Your task to perform on an android device: uninstall "Google Chat" Image 0: 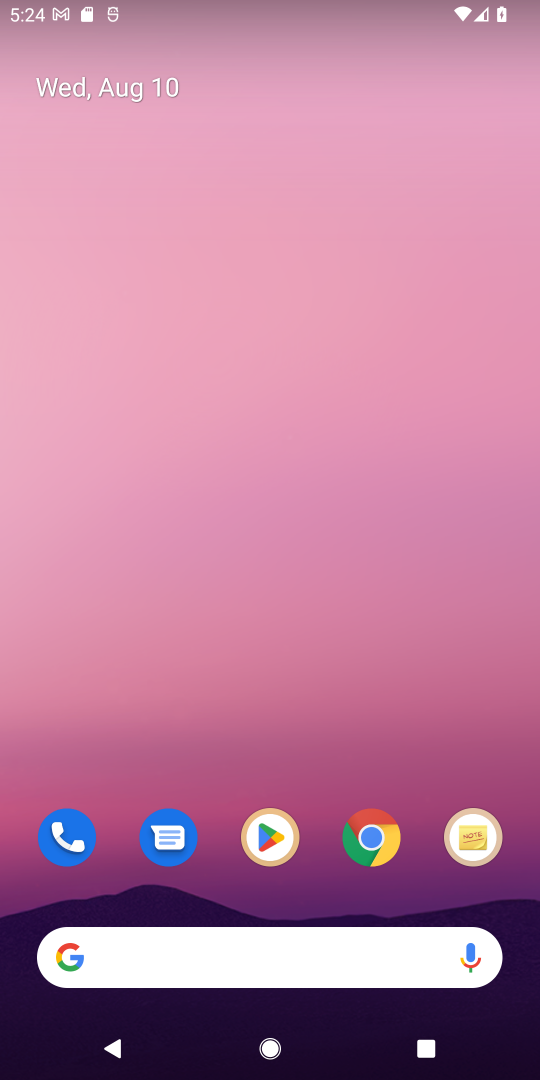
Step 0: press home button
Your task to perform on an android device: uninstall "Google Chat" Image 1: 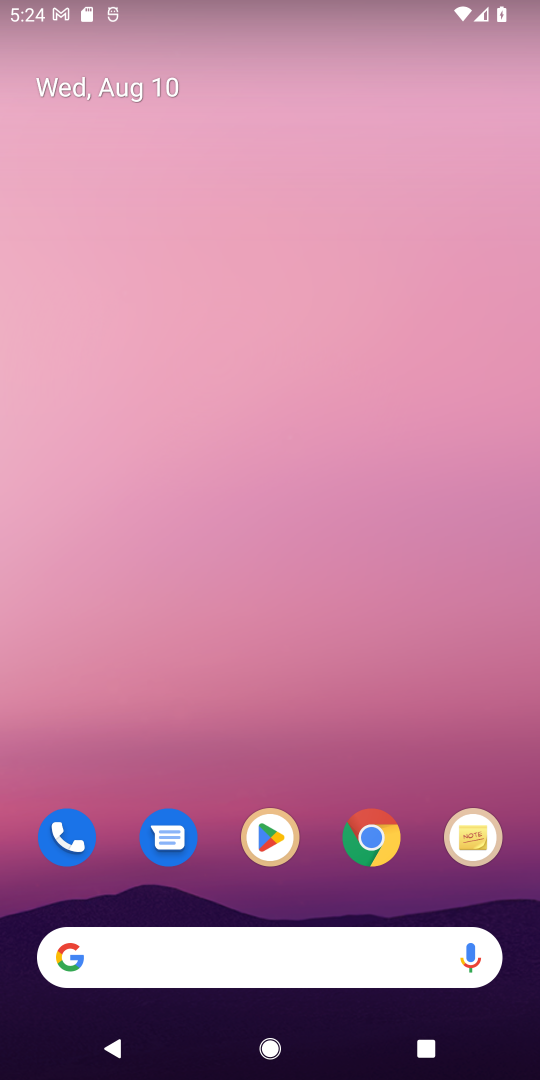
Step 1: click (268, 840)
Your task to perform on an android device: uninstall "Google Chat" Image 2: 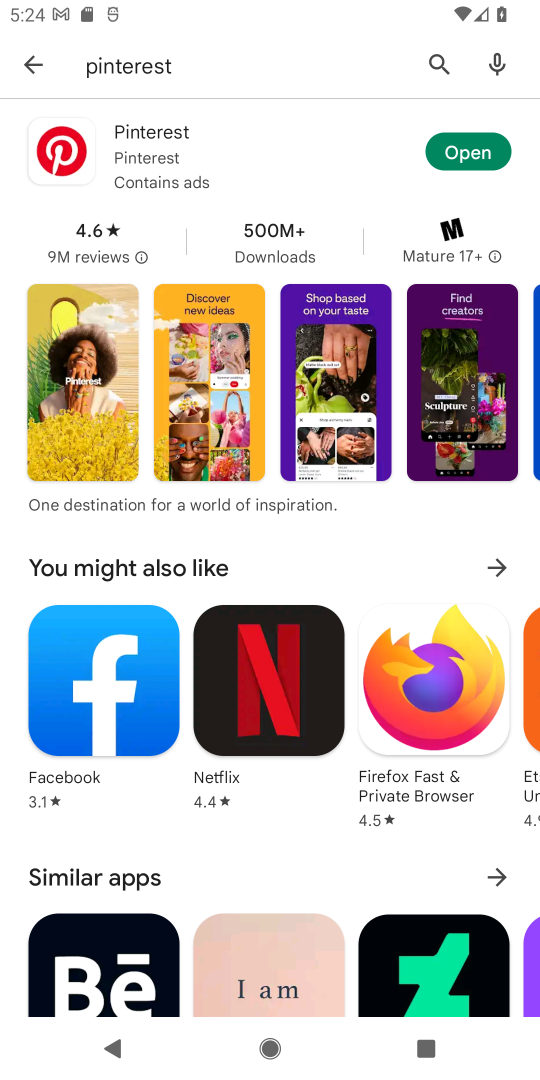
Step 2: click (436, 56)
Your task to perform on an android device: uninstall "Google Chat" Image 3: 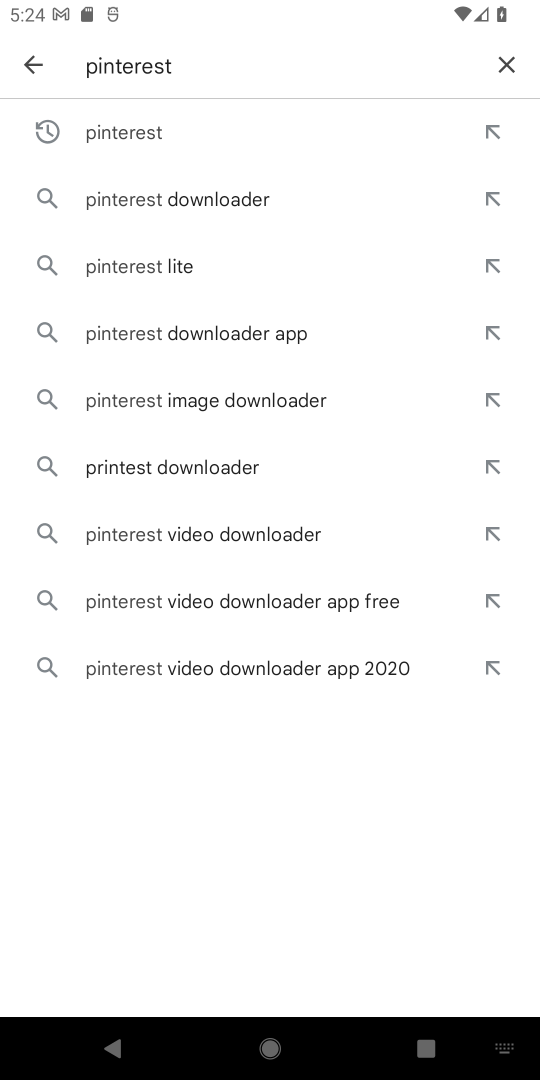
Step 3: click (499, 65)
Your task to perform on an android device: uninstall "Google Chat" Image 4: 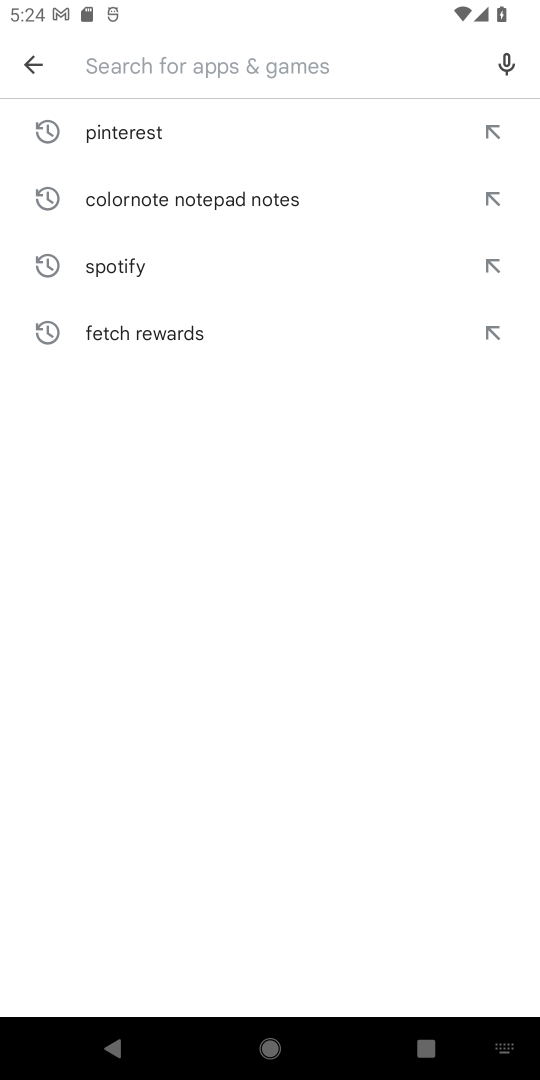
Step 4: type "Google Chat"
Your task to perform on an android device: uninstall "Google Chat" Image 5: 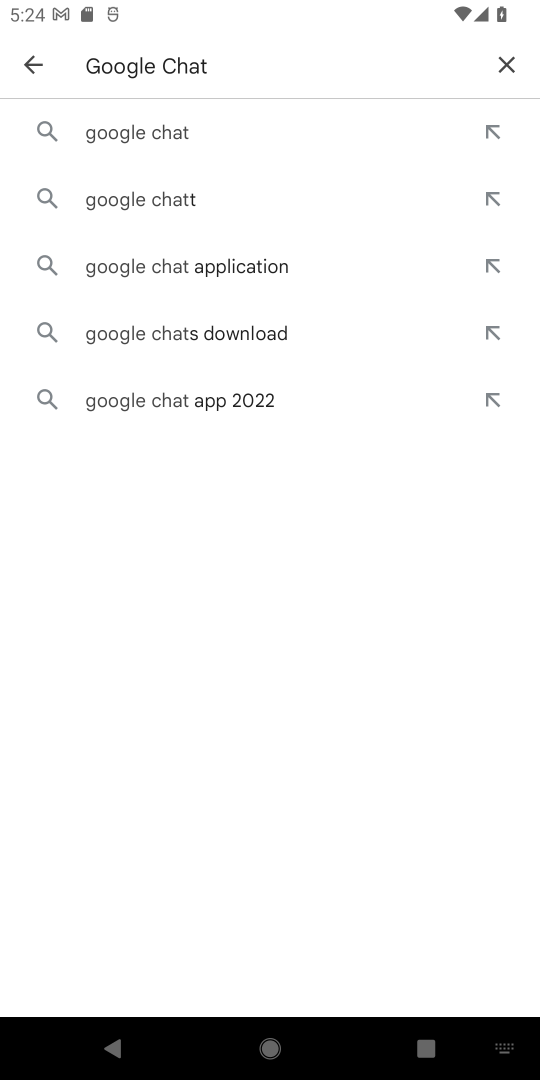
Step 5: click (133, 130)
Your task to perform on an android device: uninstall "Google Chat" Image 6: 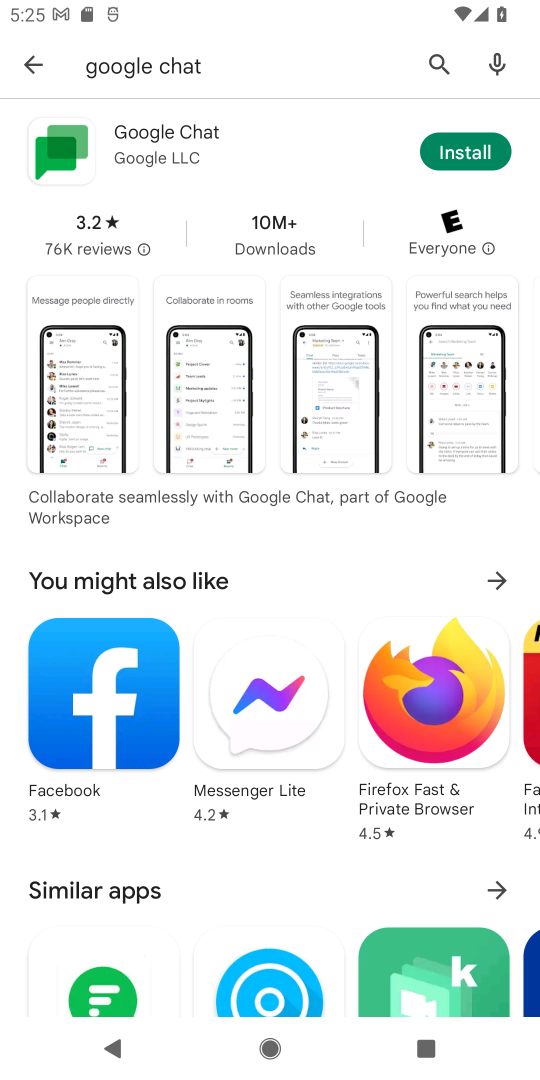
Step 6: task complete